Your task to perform on an android device: open app "Adobe Acrobat Reader" (install if not already installed) and go to login screen Image 0: 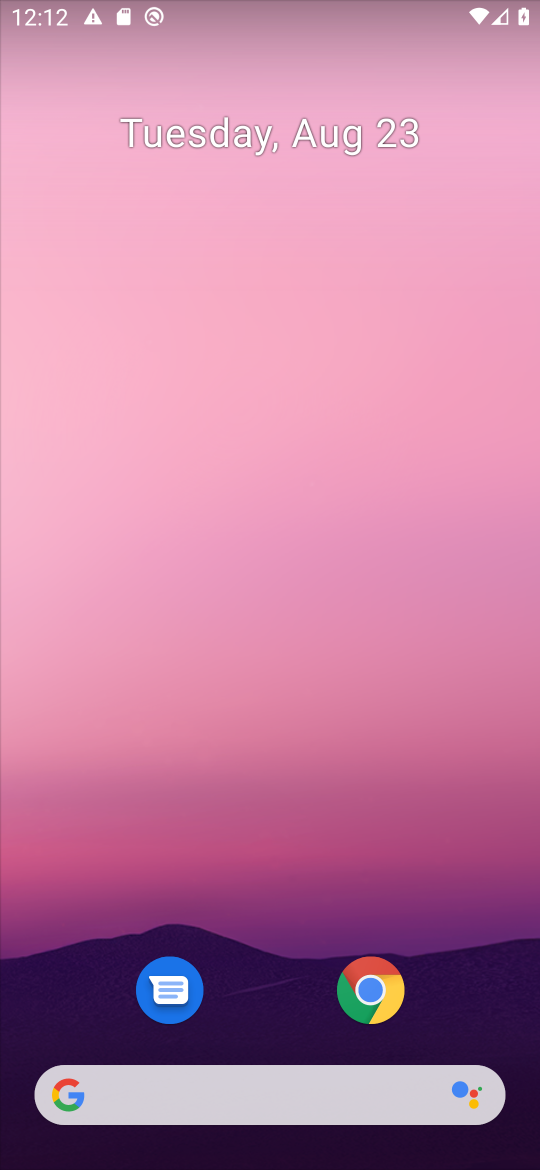
Step 0: drag from (292, 1038) to (316, 314)
Your task to perform on an android device: open app "Adobe Acrobat Reader" (install if not already installed) and go to login screen Image 1: 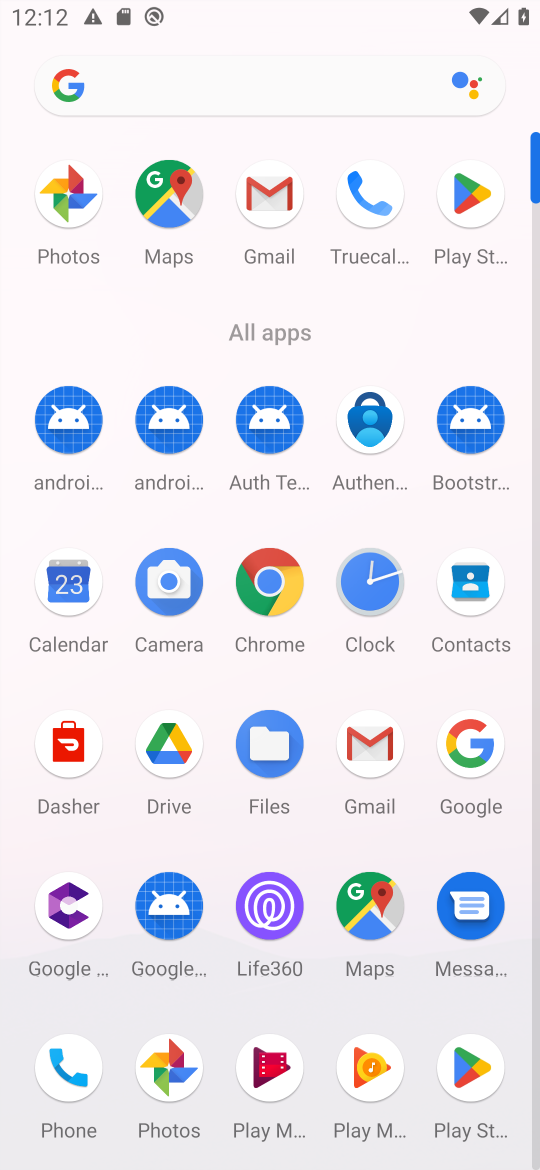
Step 1: click (470, 180)
Your task to perform on an android device: open app "Adobe Acrobat Reader" (install if not already installed) and go to login screen Image 2: 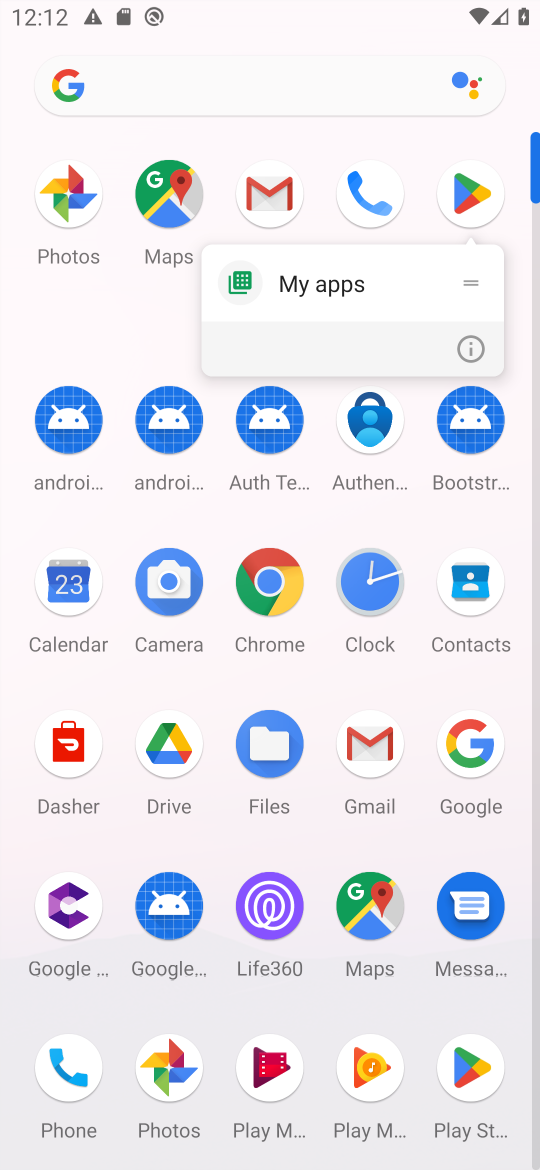
Step 2: click (452, 181)
Your task to perform on an android device: open app "Adobe Acrobat Reader" (install if not already installed) and go to login screen Image 3: 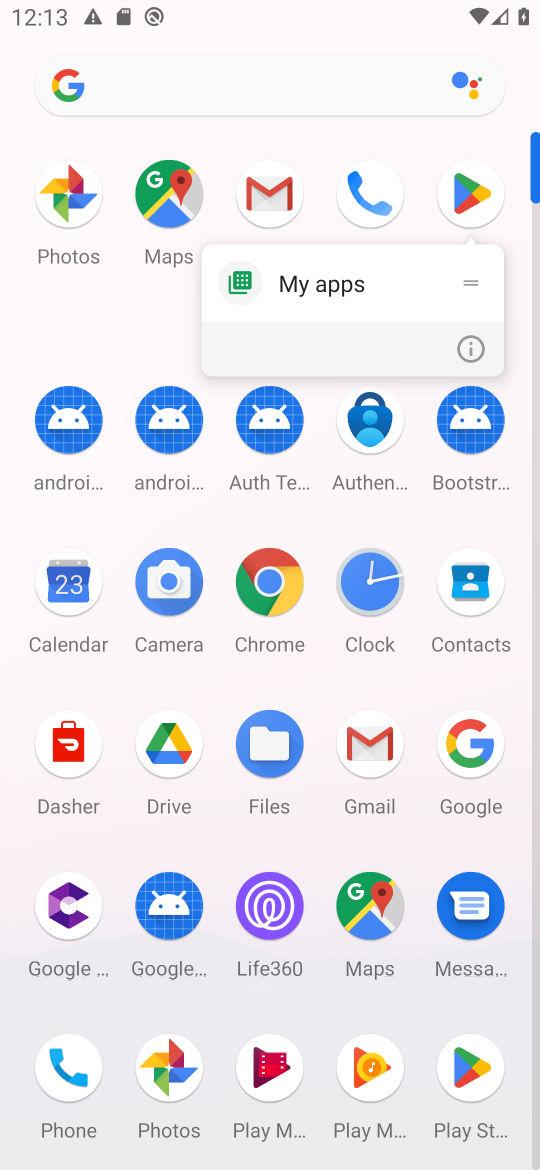
Step 3: click (451, 1060)
Your task to perform on an android device: open app "Adobe Acrobat Reader" (install if not already installed) and go to login screen Image 4: 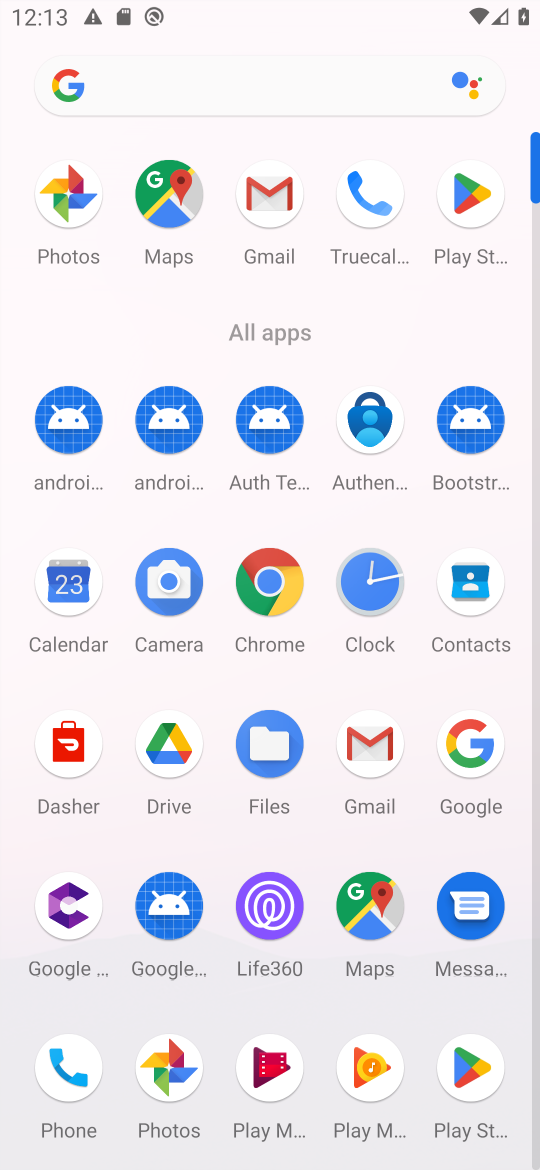
Step 4: click (466, 1084)
Your task to perform on an android device: open app "Adobe Acrobat Reader" (install if not already installed) and go to login screen Image 5: 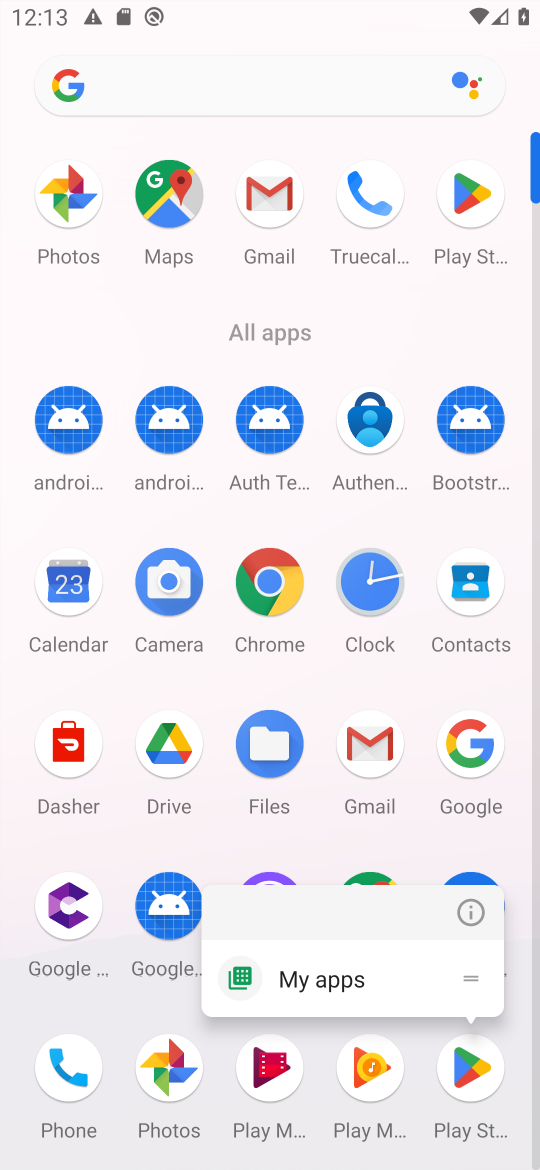
Step 5: click (456, 1070)
Your task to perform on an android device: open app "Adobe Acrobat Reader" (install if not already installed) and go to login screen Image 6: 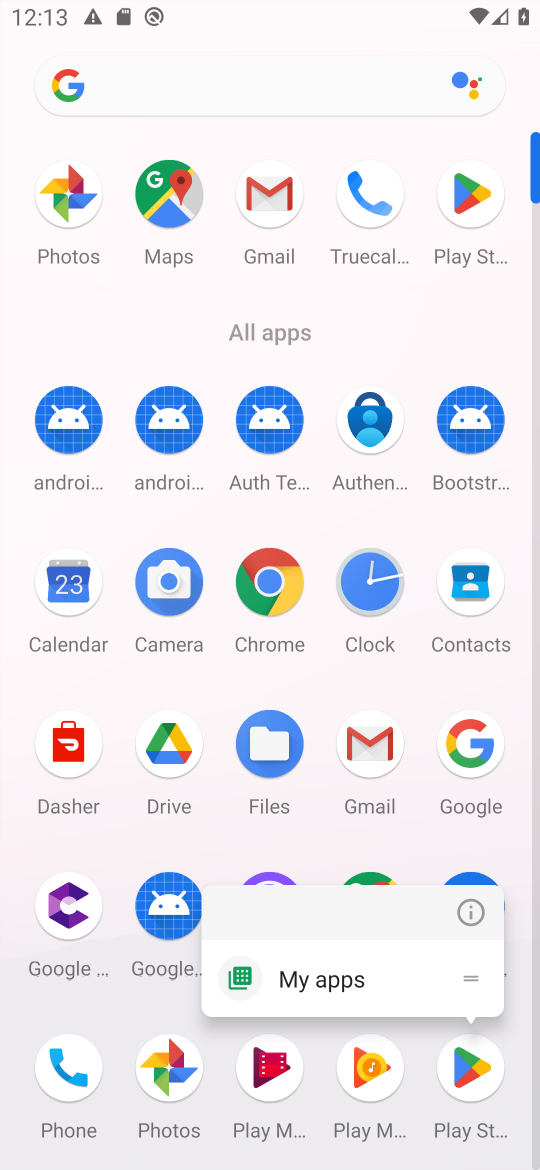
Step 6: click (456, 1070)
Your task to perform on an android device: open app "Adobe Acrobat Reader" (install if not already installed) and go to login screen Image 7: 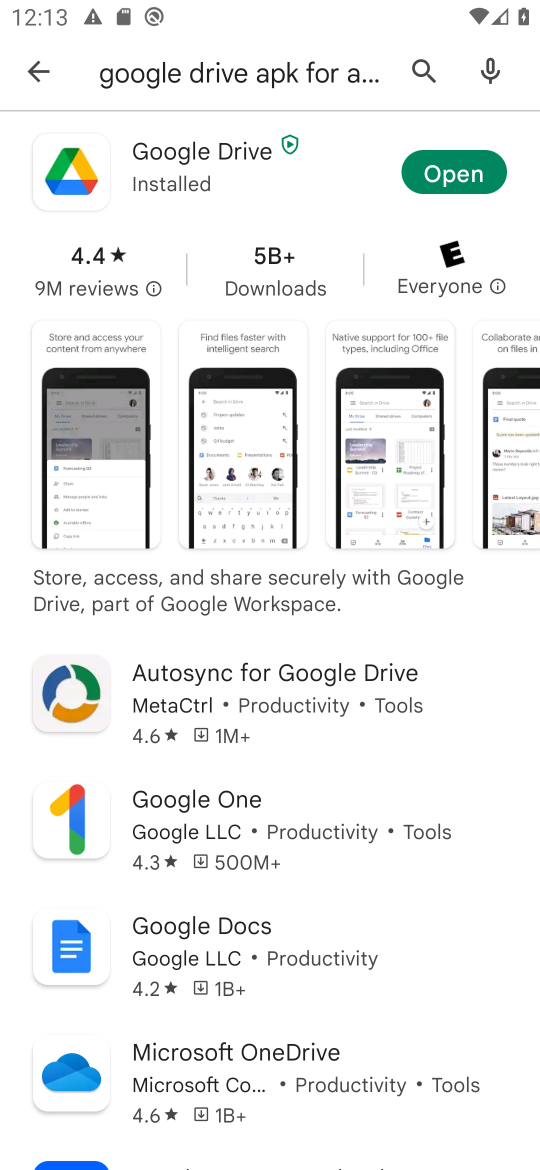
Step 7: click (34, 63)
Your task to perform on an android device: open app "Adobe Acrobat Reader" (install if not already installed) and go to login screen Image 8: 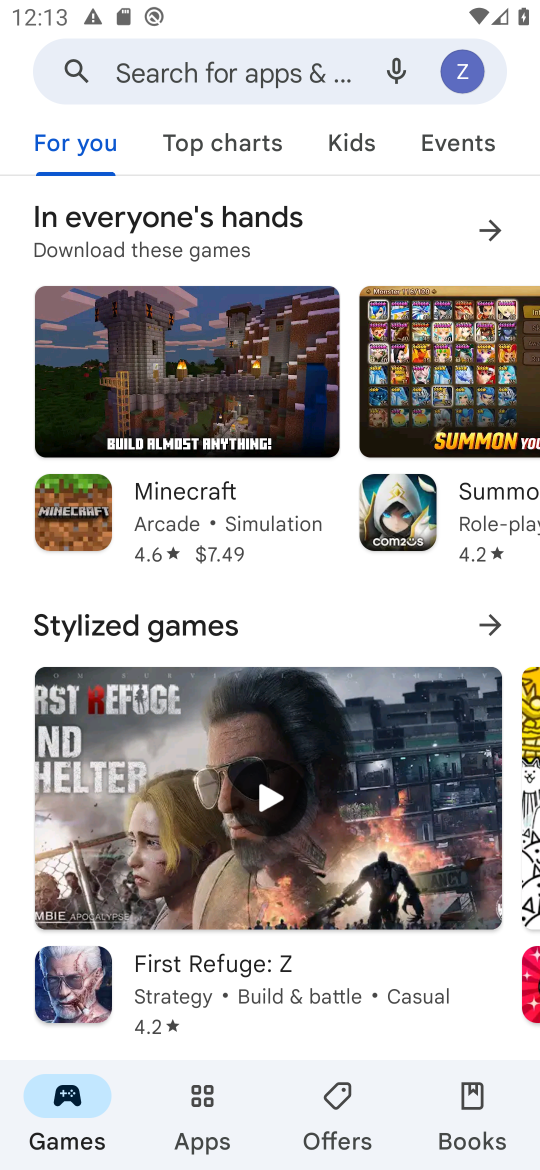
Step 8: click (274, 53)
Your task to perform on an android device: open app "Adobe Acrobat Reader" (install if not already installed) and go to login screen Image 9: 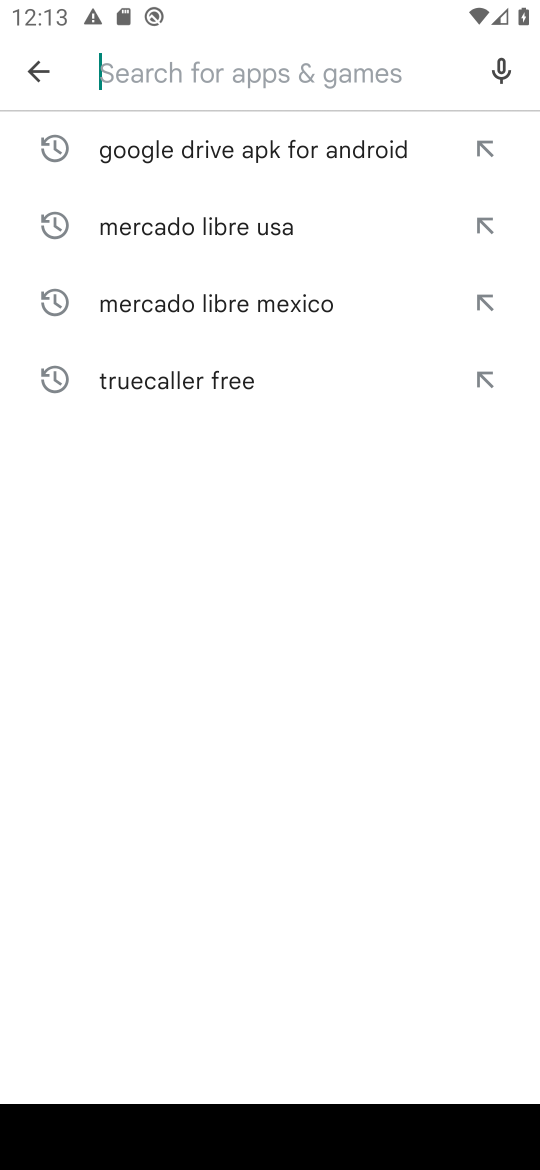
Step 9: type "Adobe Acrobat Reader "
Your task to perform on an android device: open app "Adobe Acrobat Reader" (install if not already installed) and go to login screen Image 10: 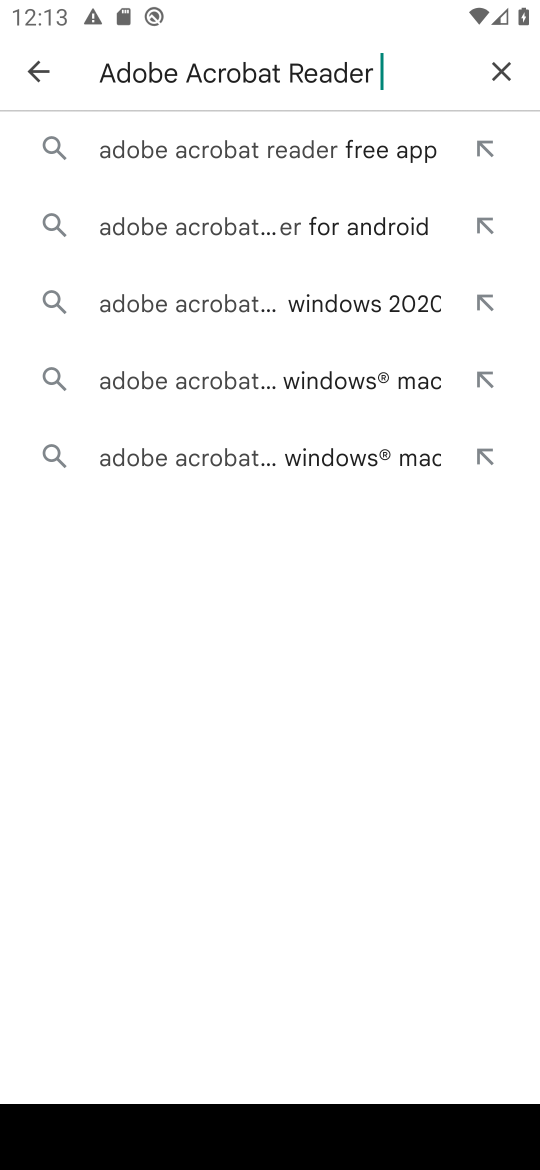
Step 10: click (268, 144)
Your task to perform on an android device: open app "Adobe Acrobat Reader" (install if not already installed) and go to login screen Image 11: 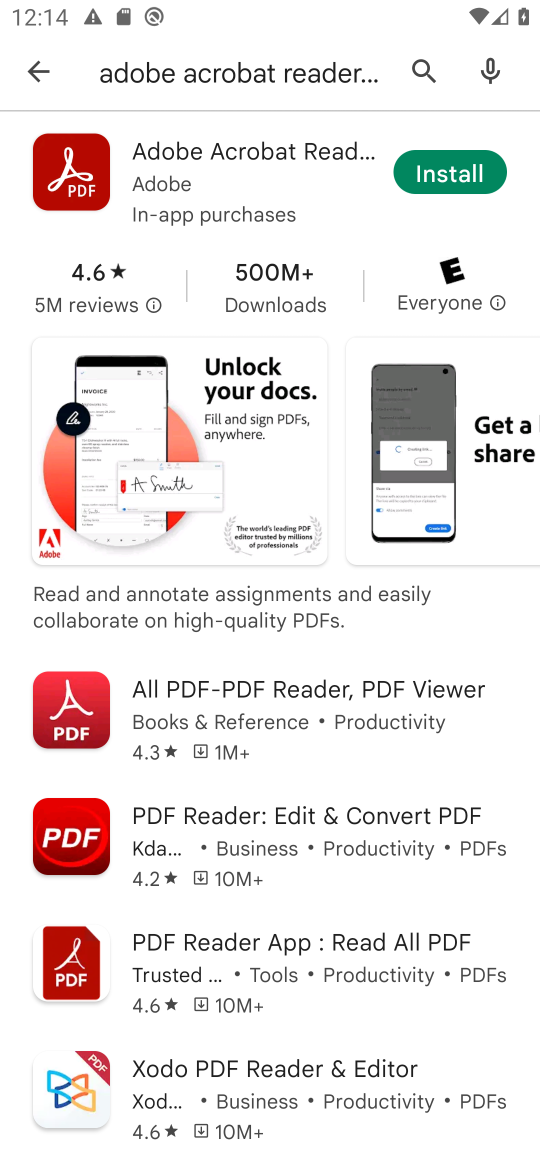
Step 11: click (427, 181)
Your task to perform on an android device: open app "Adobe Acrobat Reader" (install if not already installed) and go to login screen Image 12: 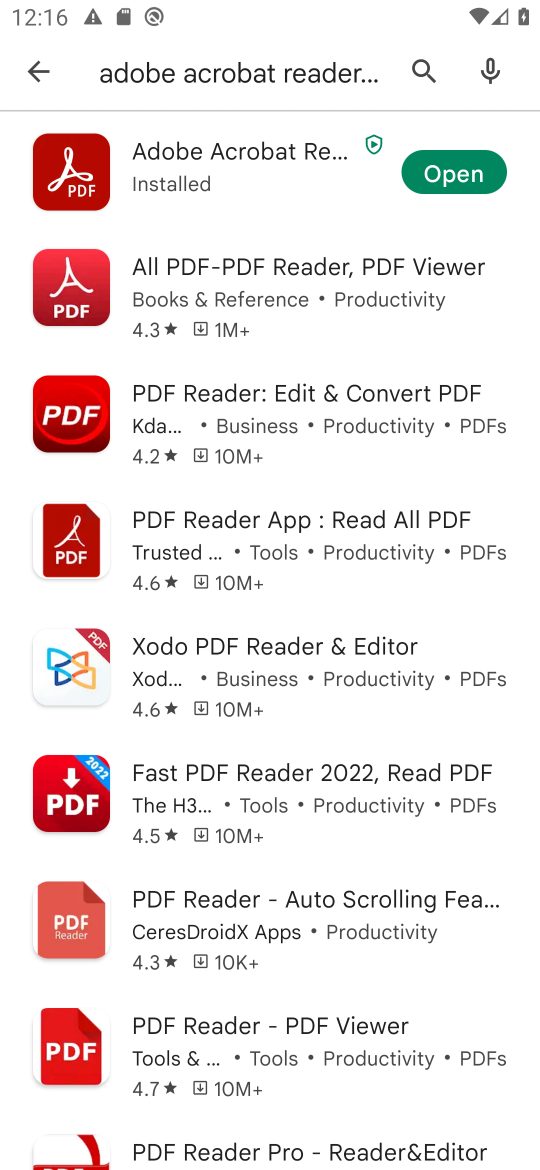
Step 12: click (406, 159)
Your task to perform on an android device: open app "Adobe Acrobat Reader" (install if not already installed) and go to login screen Image 13: 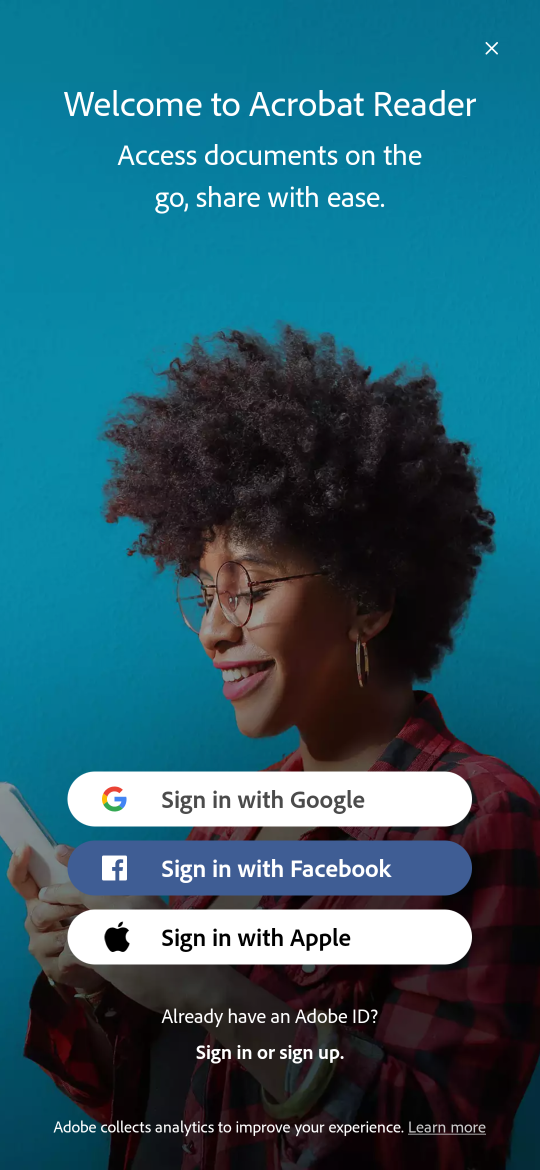
Step 13: task complete